Your task to perform on an android device: Open calendar and show me the first week of next month Image 0: 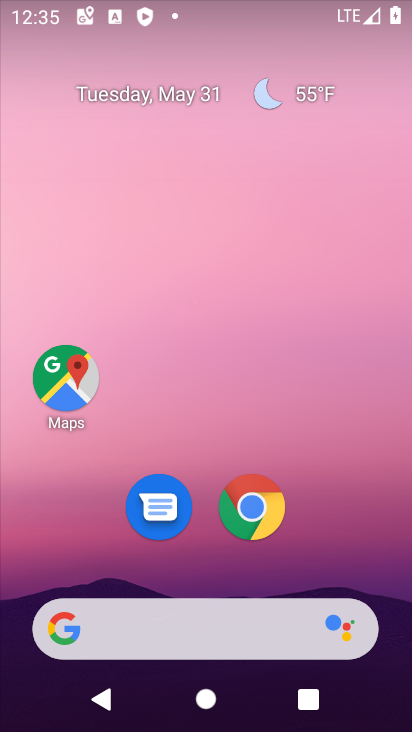
Step 0: drag from (399, 651) to (327, 37)
Your task to perform on an android device: Open calendar and show me the first week of next month Image 1: 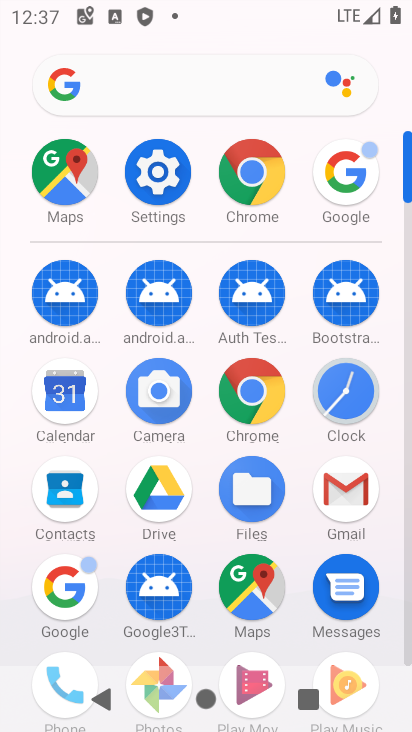
Step 1: click (64, 419)
Your task to perform on an android device: Open calendar and show me the first week of next month Image 2: 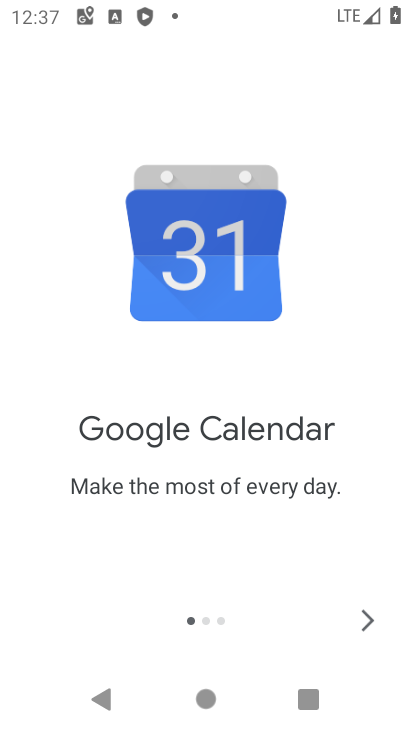
Step 2: click (361, 615)
Your task to perform on an android device: Open calendar and show me the first week of next month Image 3: 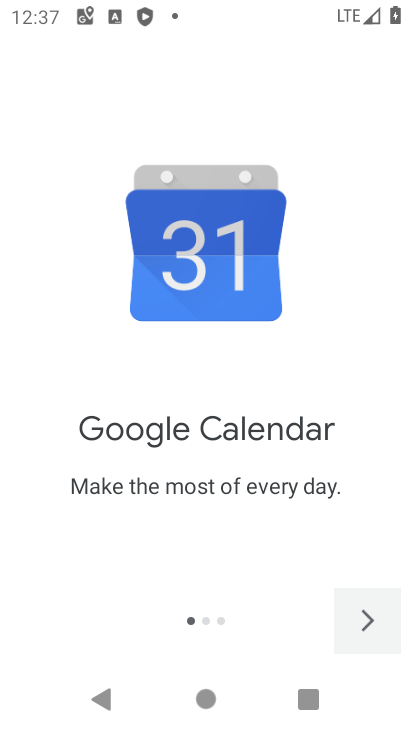
Step 3: click (361, 615)
Your task to perform on an android device: Open calendar and show me the first week of next month Image 4: 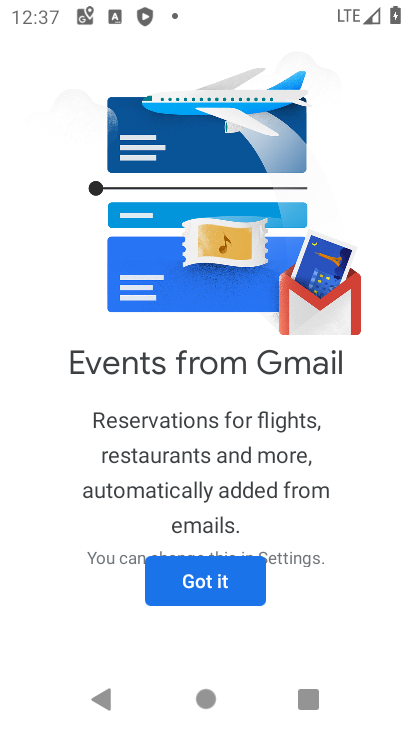
Step 4: click (361, 615)
Your task to perform on an android device: Open calendar and show me the first week of next month Image 5: 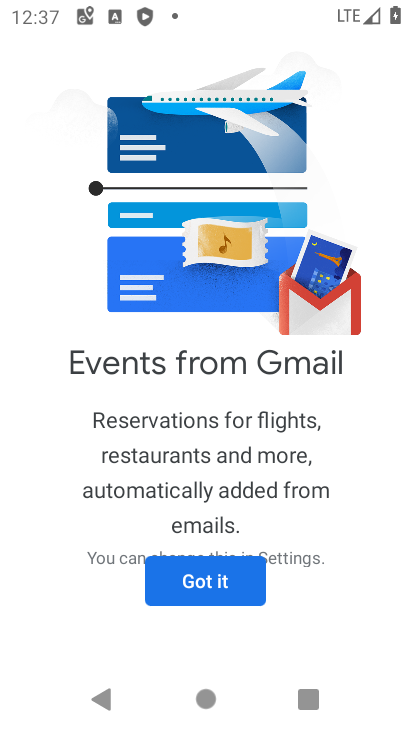
Step 5: click (201, 582)
Your task to perform on an android device: Open calendar and show me the first week of next month Image 6: 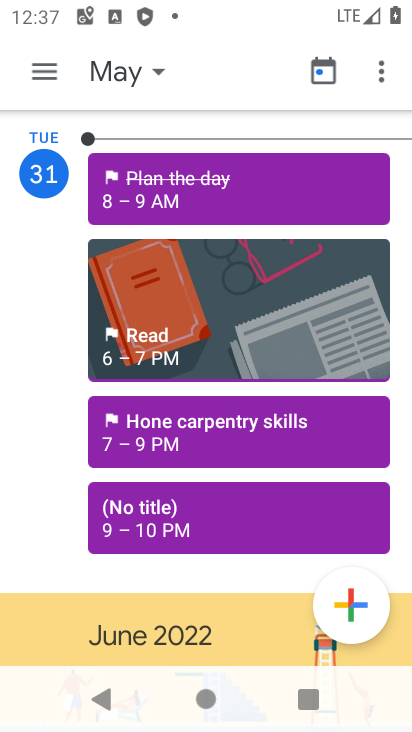
Step 6: click (110, 71)
Your task to perform on an android device: Open calendar and show me the first week of next month Image 7: 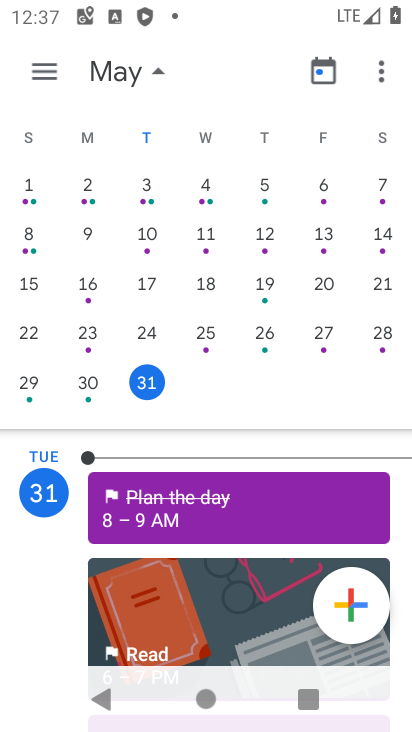
Step 7: drag from (296, 244) to (40, 280)
Your task to perform on an android device: Open calendar and show me the first week of next month Image 8: 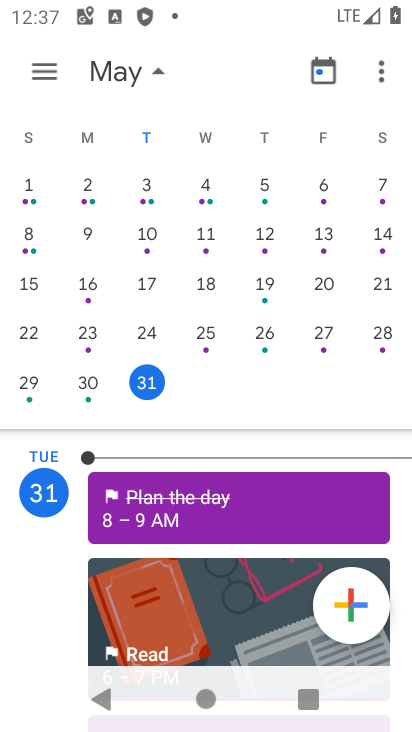
Step 8: drag from (319, 243) to (17, 287)
Your task to perform on an android device: Open calendar and show me the first week of next month Image 9: 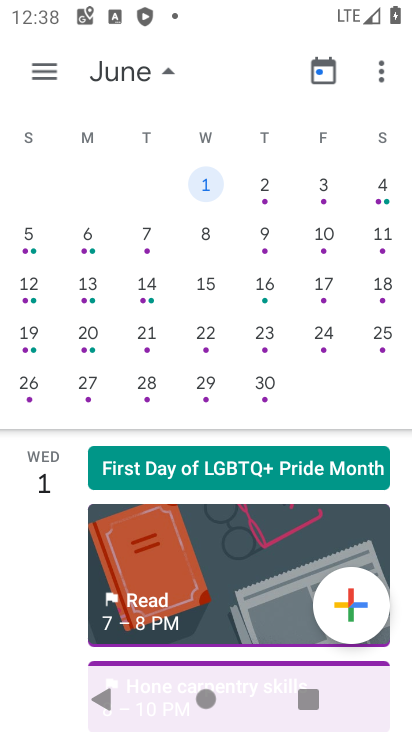
Step 9: click (84, 234)
Your task to perform on an android device: Open calendar and show me the first week of next month Image 10: 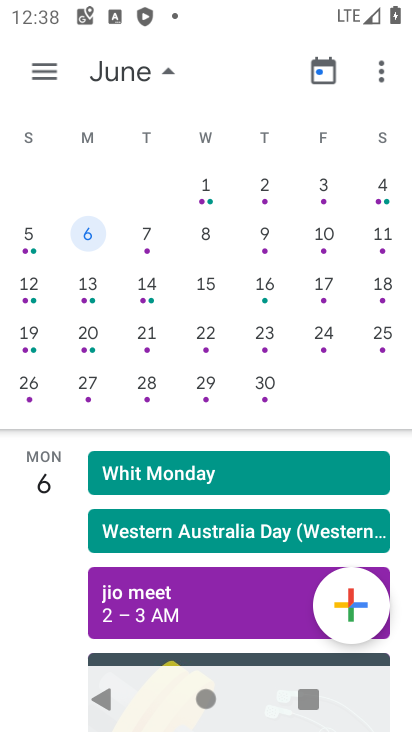
Step 10: task complete